Your task to perform on an android device: choose inbox layout in the gmail app Image 0: 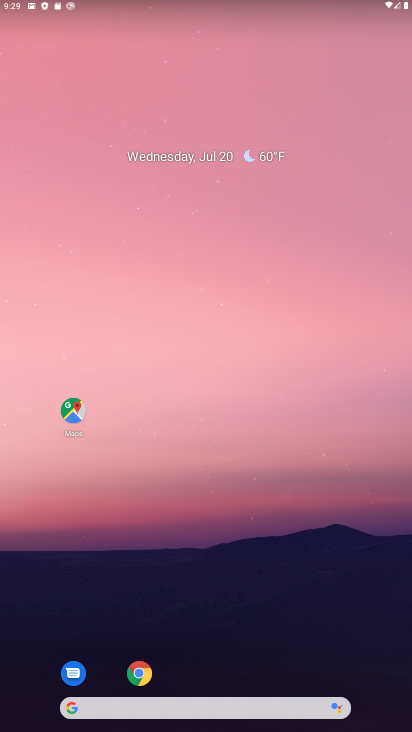
Step 0: drag from (206, 669) to (221, 26)
Your task to perform on an android device: choose inbox layout in the gmail app Image 1: 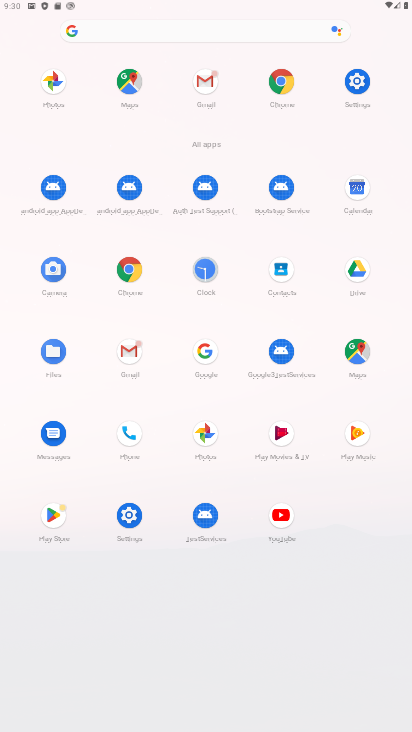
Step 1: click (129, 373)
Your task to perform on an android device: choose inbox layout in the gmail app Image 2: 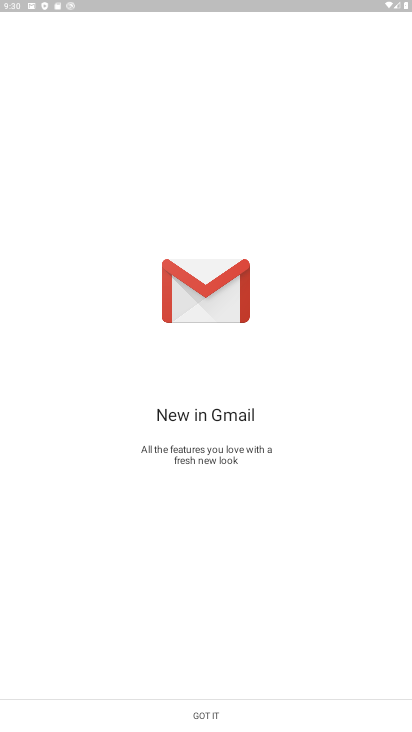
Step 2: click (235, 706)
Your task to perform on an android device: choose inbox layout in the gmail app Image 3: 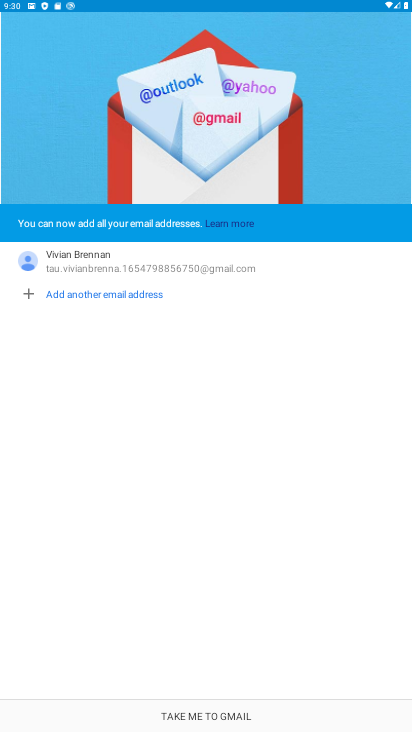
Step 3: click (228, 709)
Your task to perform on an android device: choose inbox layout in the gmail app Image 4: 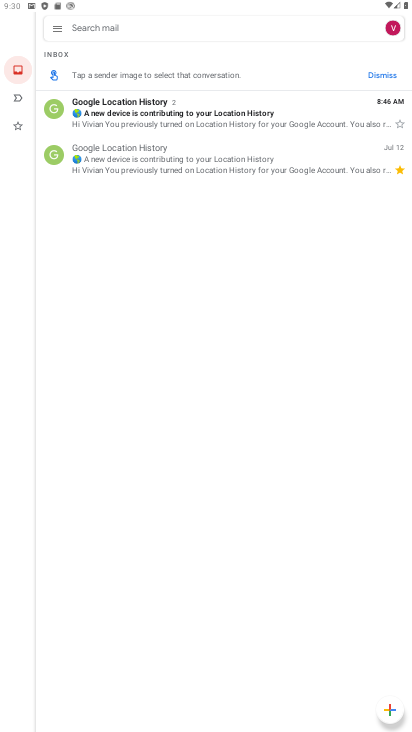
Step 4: click (57, 29)
Your task to perform on an android device: choose inbox layout in the gmail app Image 5: 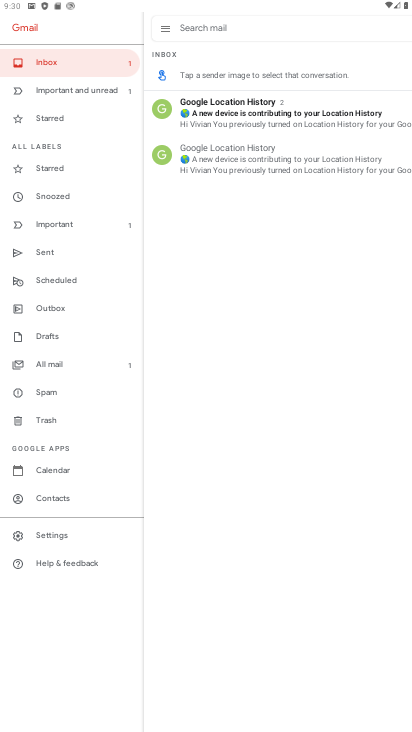
Step 5: click (58, 538)
Your task to perform on an android device: choose inbox layout in the gmail app Image 6: 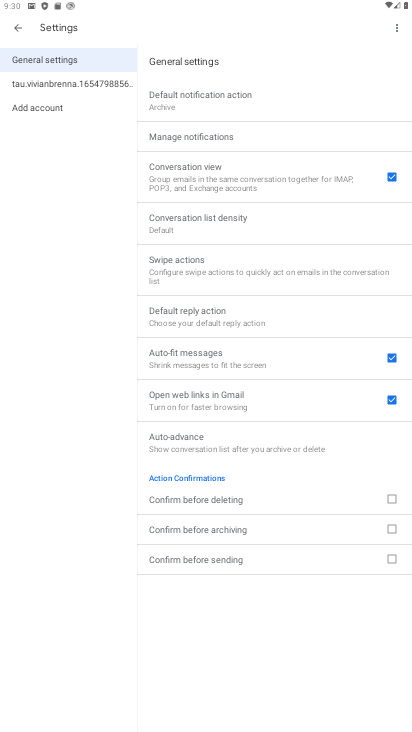
Step 6: click (49, 81)
Your task to perform on an android device: choose inbox layout in the gmail app Image 7: 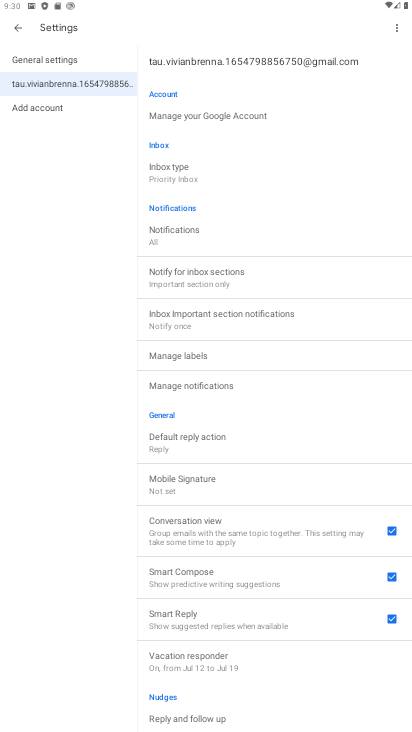
Step 7: click (190, 175)
Your task to perform on an android device: choose inbox layout in the gmail app Image 8: 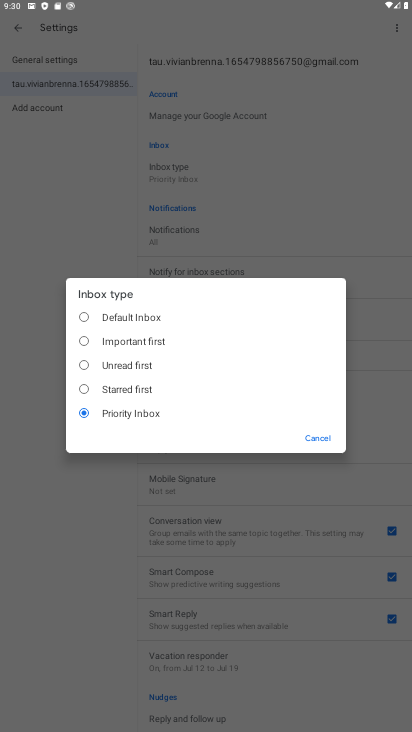
Step 8: click (108, 314)
Your task to perform on an android device: choose inbox layout in the gmail app Image 9: 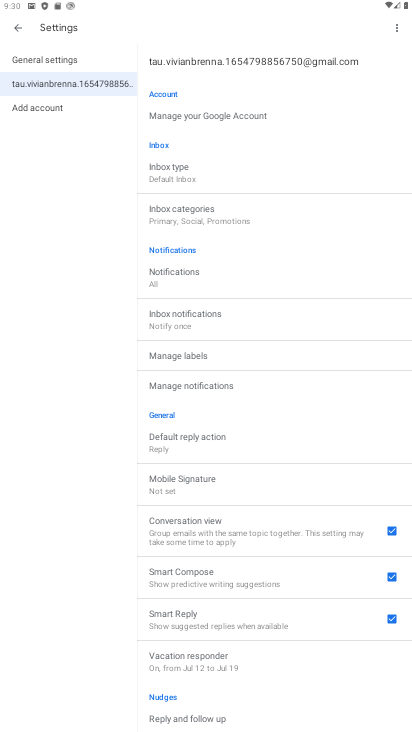
Step 9: task complete